Your task to perform on an android device: Search for Italian restaurants on Maps Image 0: 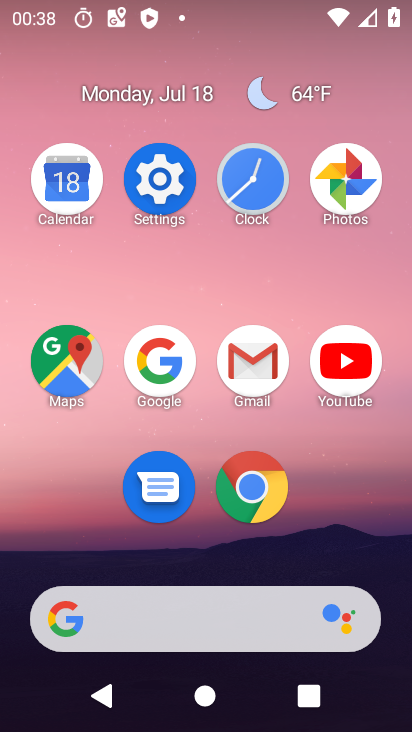
Step 0: click (41, 344)
Your task to perform on an android device: Search for Italian restaurants on Maps Image 1: 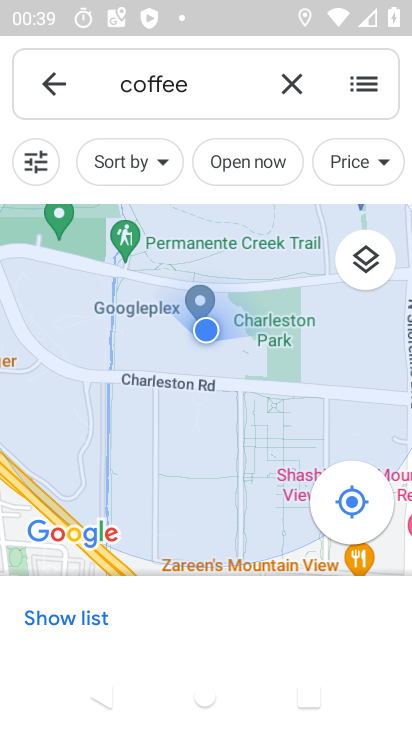
Step 1: click (287, 82)
Your task to perform on an android device: Search for Italian restaurants on Maps Image 2: 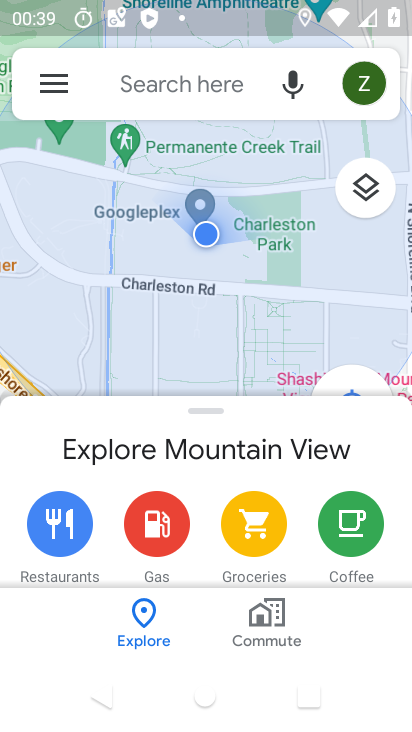
Step 2: click (180, 74)
Your task to perform on an android device: Search for Italian restaurants on Maps Image 3: 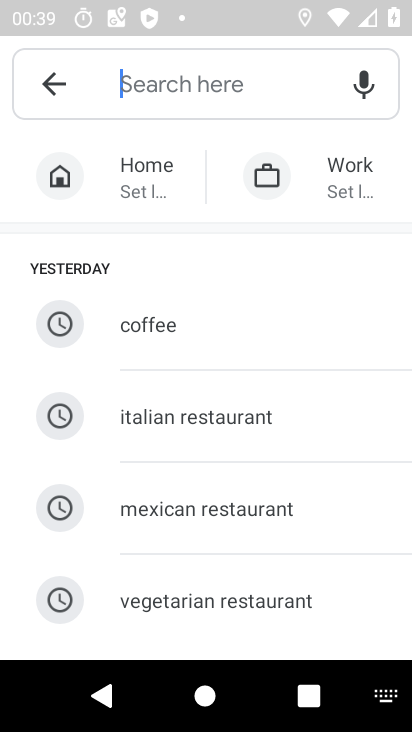
Step 3: click (246, 408)
Your task to perform on an android device: Search for Italian restaurants on Maps Image 4: 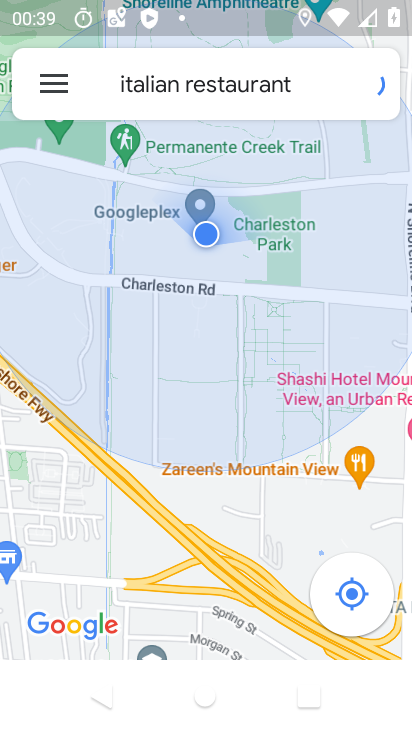
Step 4: task complete